Your task to perform on an android device: Go to Android settings Image 0: 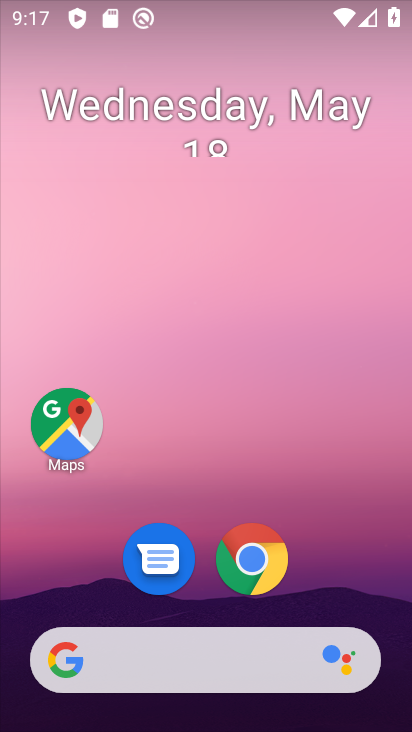
Step 0: drag from (344, 480) to (261, 19)
Your task to perform on an android device: Go to Android settings Image 1: 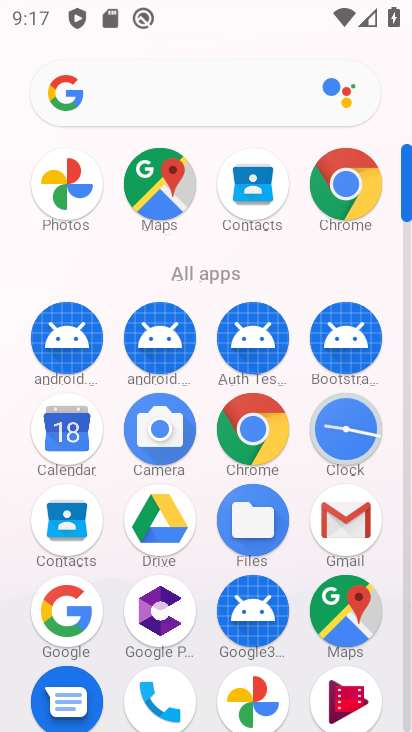
Step 1: drag from (18, 545) to (2, 202)
Your task to perform on an android device: Go to Android settings Image 2: 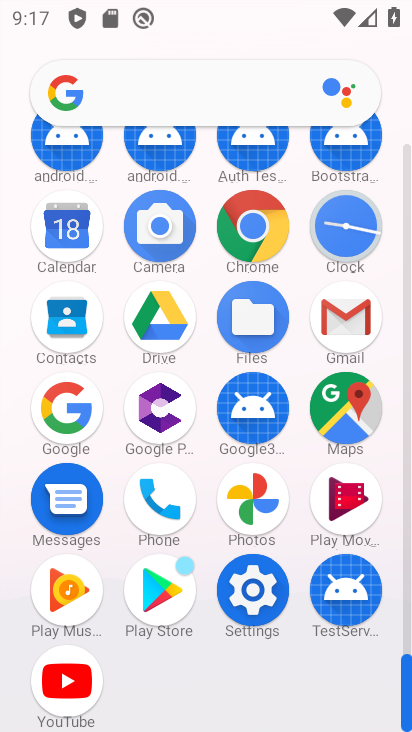
Step 2: click (249, 583)
Your task to perform on an android device: Go to Android settings Image 3: 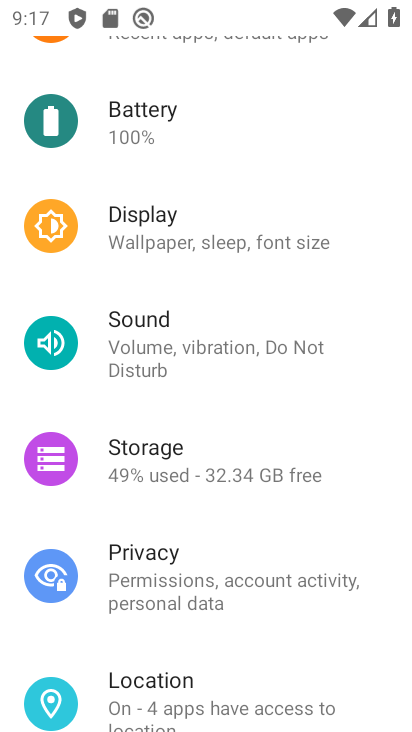
Step 3: task complete